Your task to perform on an android device: Open the stopwatch Image 0: 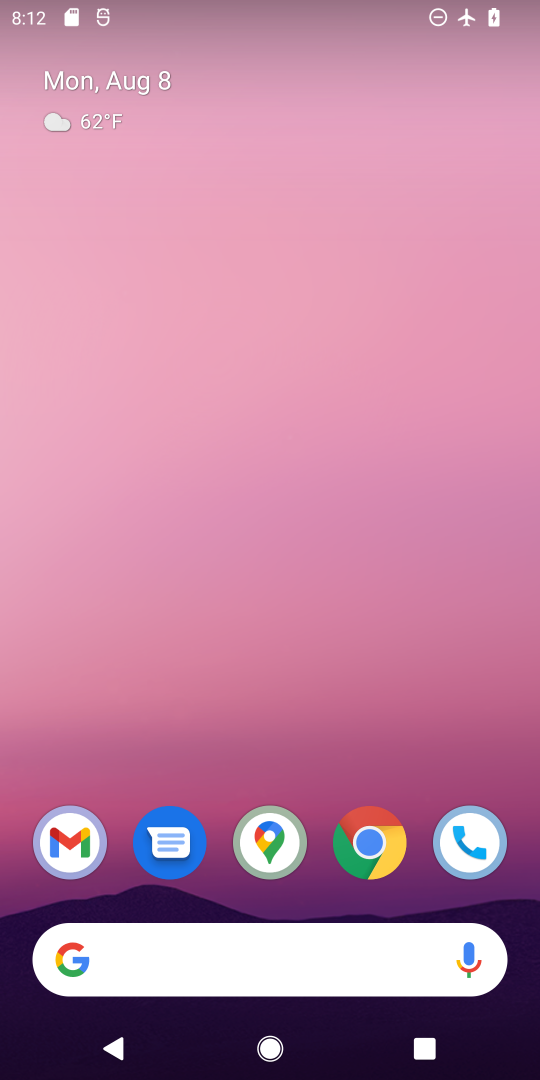
Step 0: drag from (251, 864) to (218, 100)
Your task to perform on an android device: Open the stopwatch Image 1: 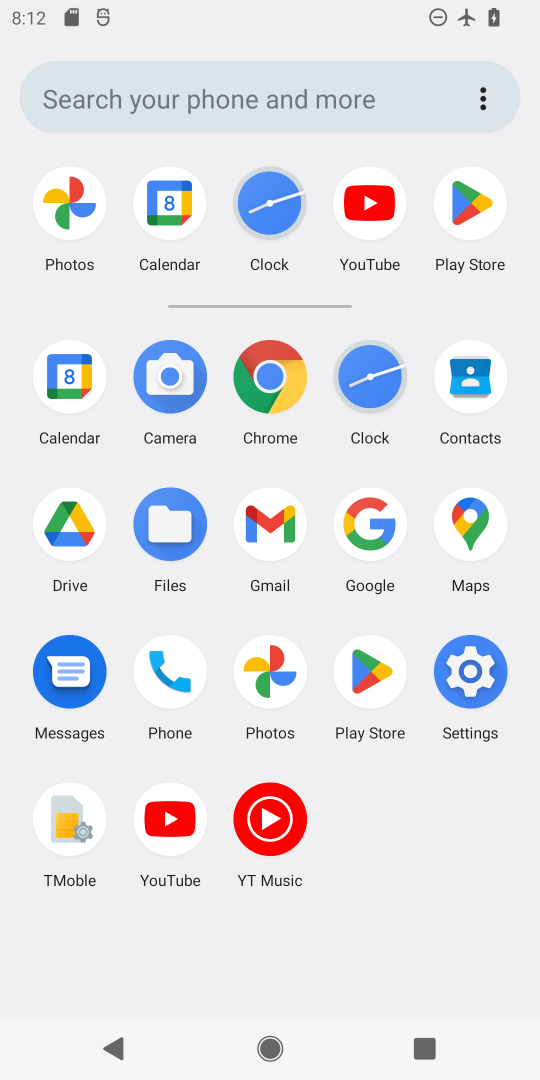
Step 1: click (380, 371)
Your task to perform on an android device: Open the stopwatch Image 2: 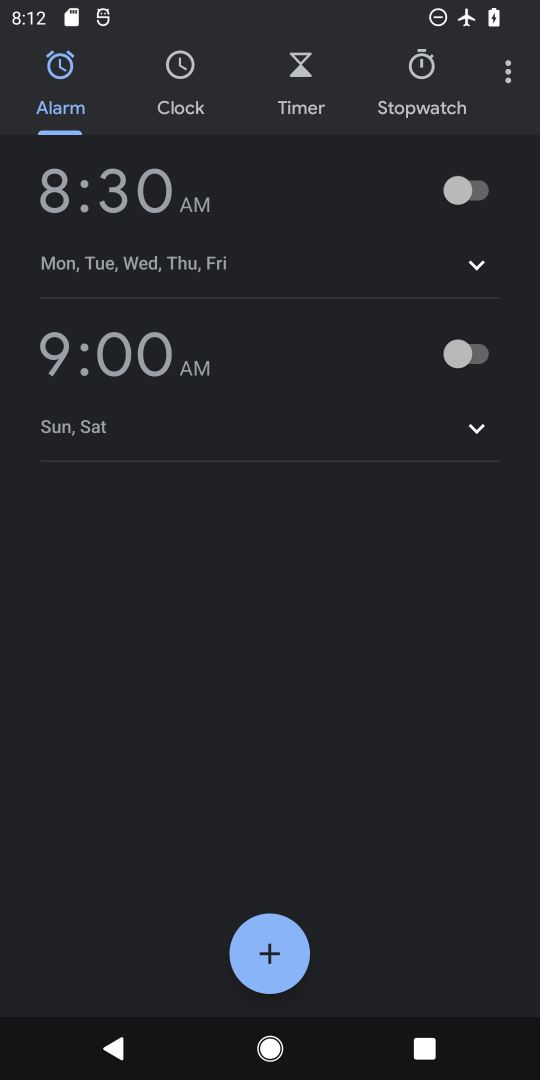
Step 2: click (417, 80)
Your task to perform on an android device: Open the stopwatch Image 3: 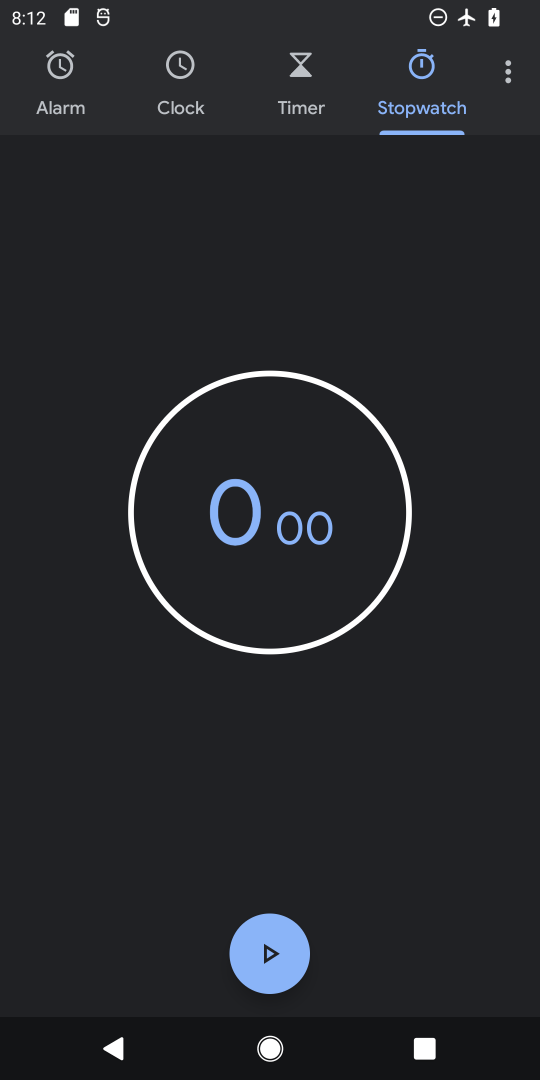
Step 3: task complete